Your task to perform on an android device: move an email to a new category in the gmail app Image 0: 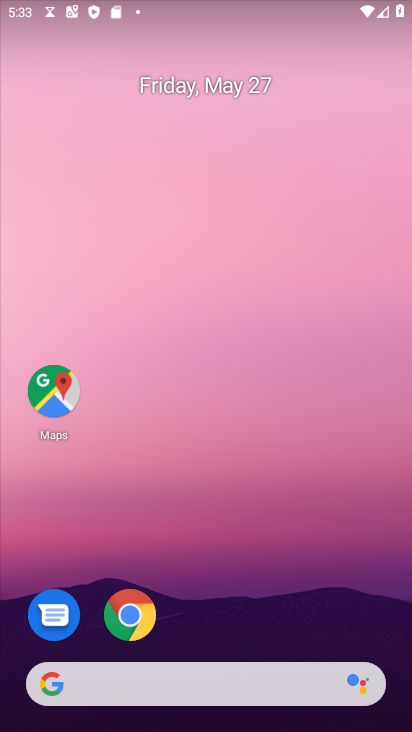
Step 0: drag from (294, 595) to (193, 20)
Your task to perform on an android device: move an email to a new category in the gmail app Image 1: 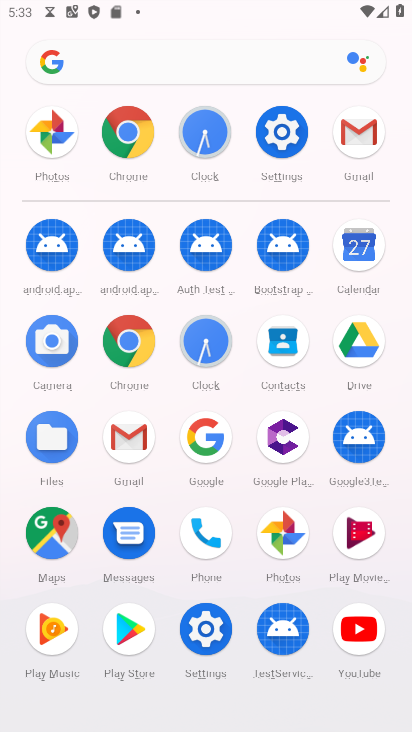
Step 1: click (356, 127)
Your task to perform on an android device: move an email to a new category in the gmail app Image 2: 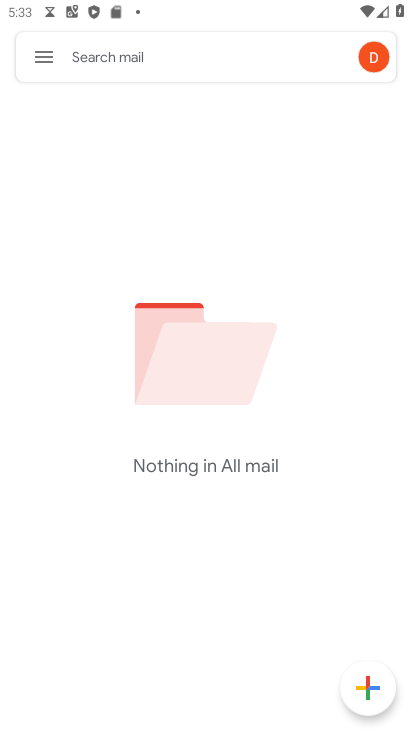
Step 2: click (46, 55)
Your task to perform on an android device: move an email to a new category in the gmail app Image 3: 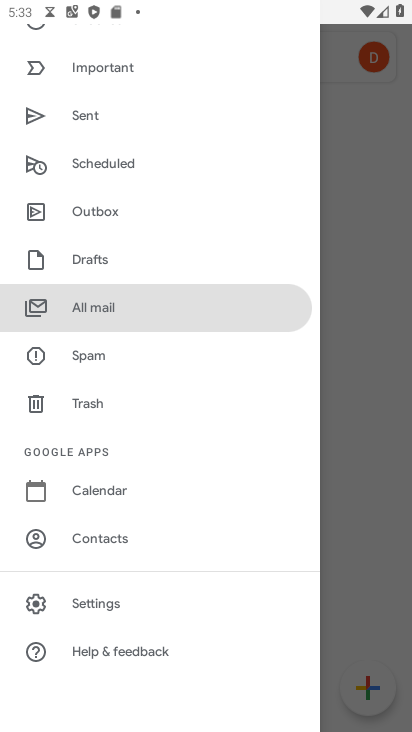
Step 3: click (367, 415)
Your task to perform on an android device: move an email to a new category in the gmail app Image 4: 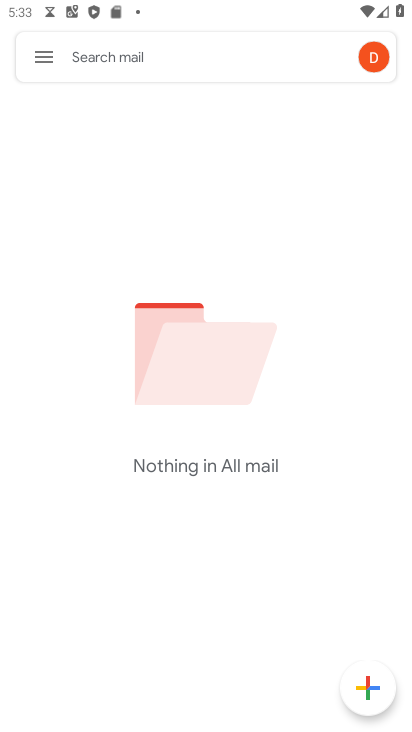
Step 4: task complete